Your task to perform on an android device: Open Reddit.com Image 0: 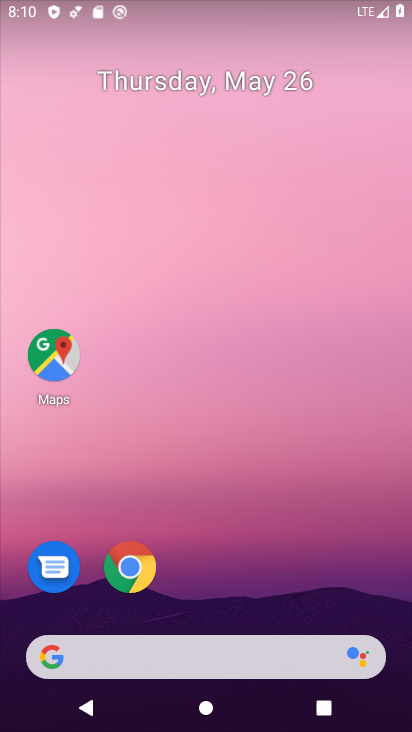
Step 0: click (226, 677)
Your task to perform on an android device: Open Reddit.com Image 1: 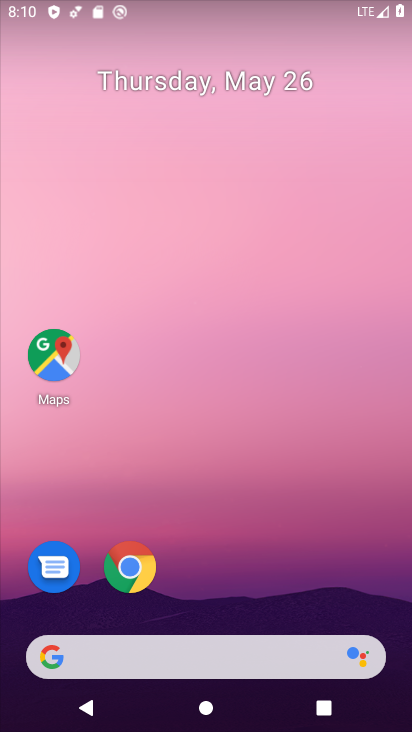
Step 1: click (289, 660)
Your task to perform on an android device: Open Reddit.com Image 2: 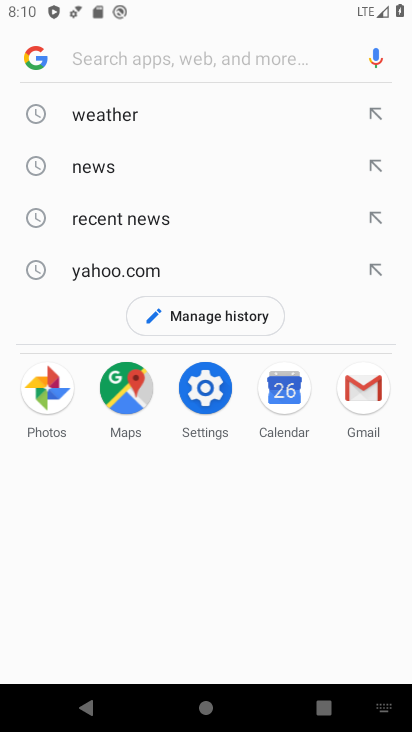
Step 2: type "reddit.com"
Your task to perform on an android device: Open Reddit.com Image 3: 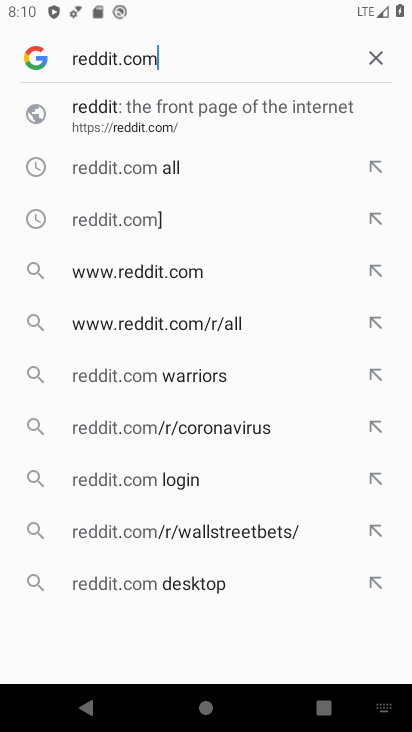
Step 3: click (212, 94)
Your task to perform on an android device: Open Reddit.com Image 4: 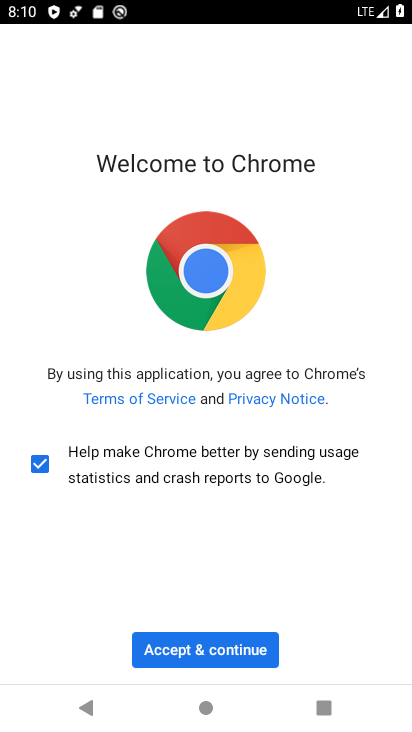
Step 4: click (238, 649)
Your task to perform on an android device: Open Reddit.com Image 5: 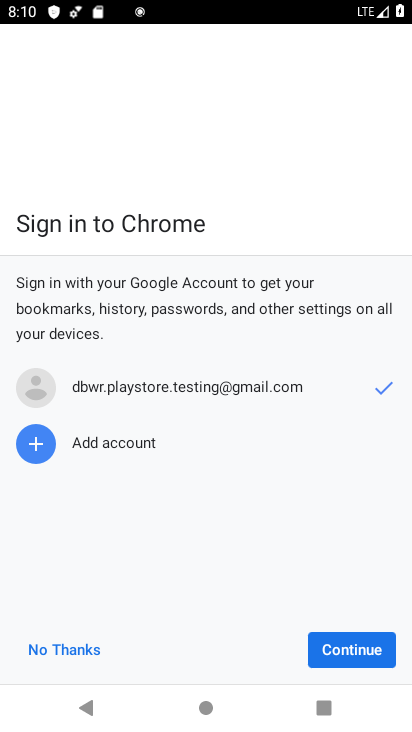
Step 5: click (350, 661)
Your task to perform on an android device: Open Reddit.com Image 6: 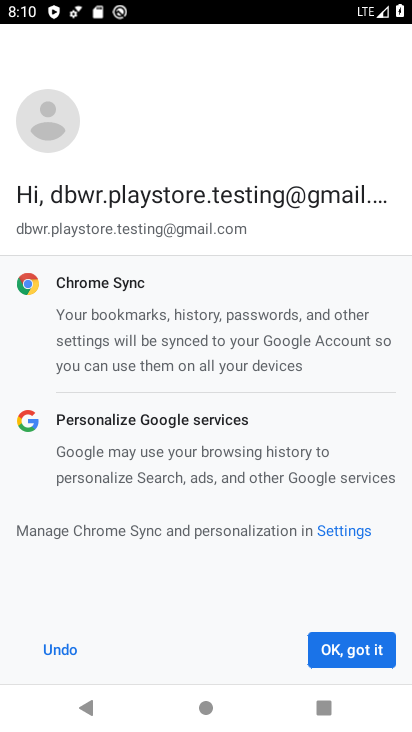
Step 6: click (352, 655)
Your task to perform on an android device: Open Reddit.com Image 7: 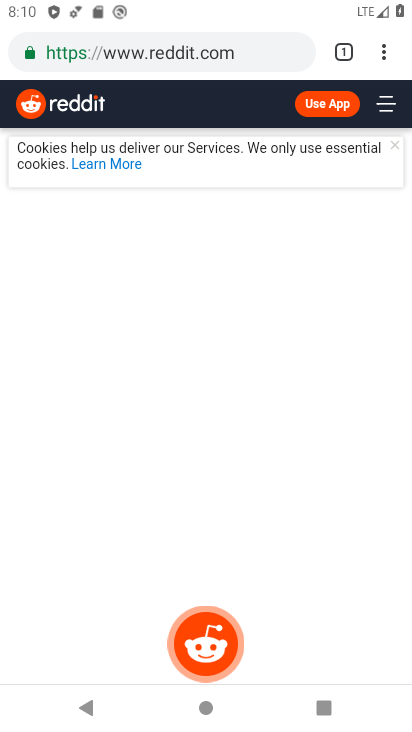
Step 7: task complete